Your task to perform on an android device: Is it going to rain this weekend? Image 0: 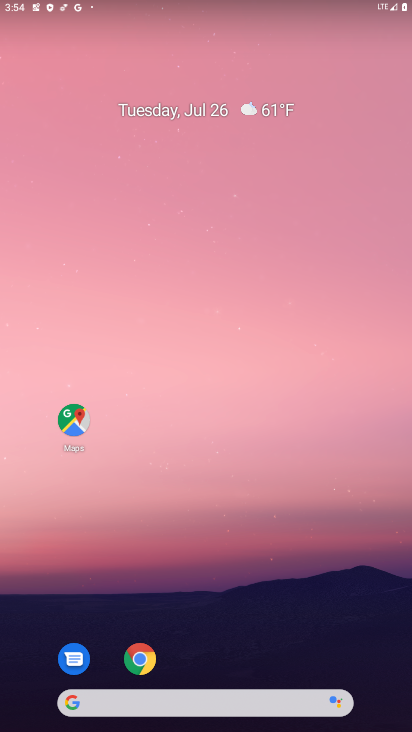
Step 0: drag from (307, 669) to (248, 60)
Your task to perform on an android device: Is it going to rain this weekend? Image 1: 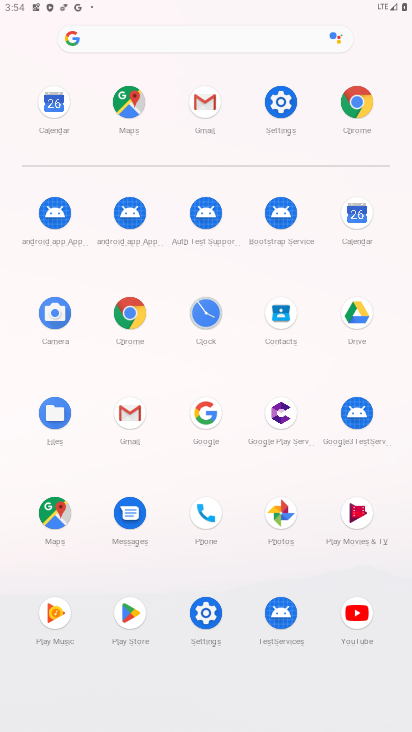
Step 1: click (354, 98)
Your task to perform on an android device: Is it going to rain this weekend? Image 2: 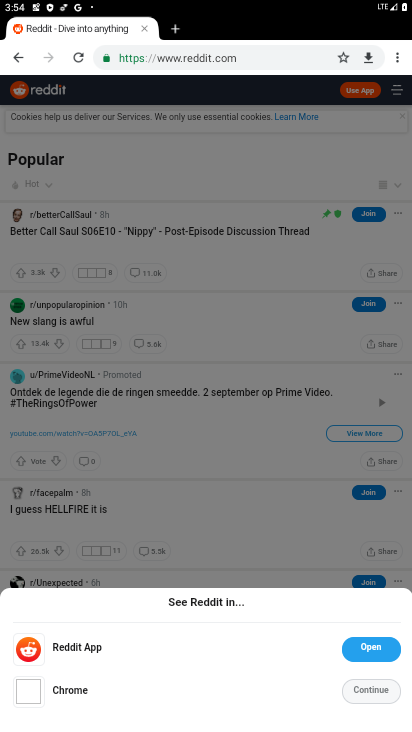
Step 2: click (189, 58)
Your task to perform on an android device: Is it going to rain this weekend? Image 3: 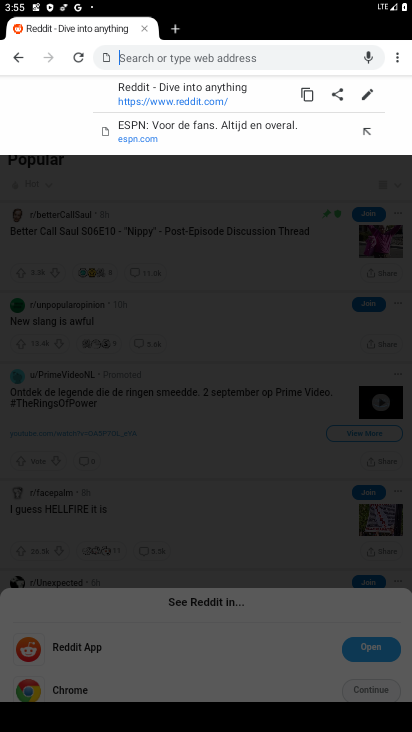
Step 3: type "weather"
Your task to perform on an android device: Is it going to rain this weekend? Image 4: 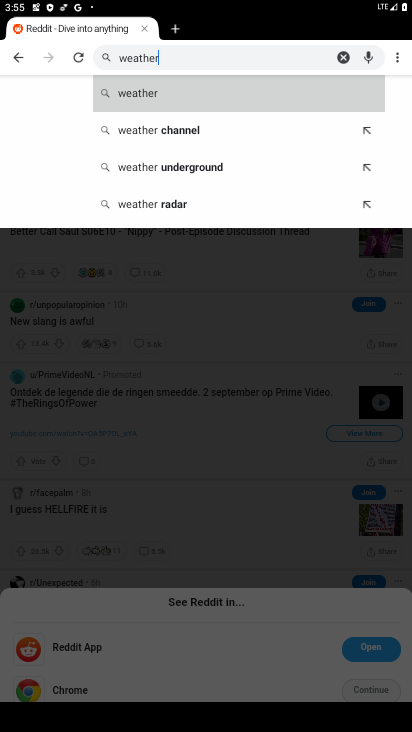
Step 4: click (159, 97)
Your task to perform on an android device: Is it going to rain this weekend? Image 5: 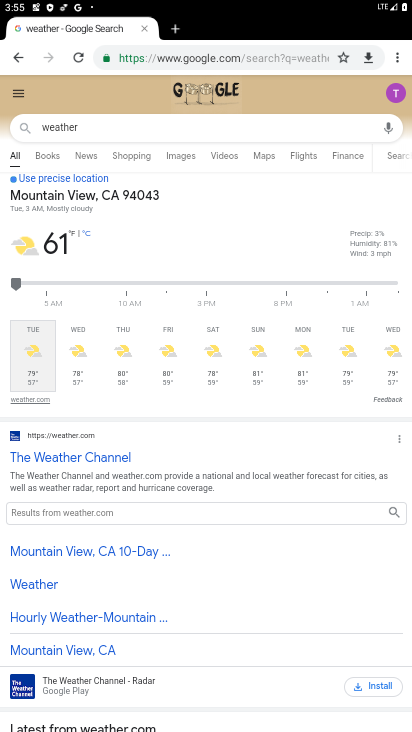
Step 5: click (209, 345)
Your task to perform on an android device: Is it going to rain this weekend? Image 6: 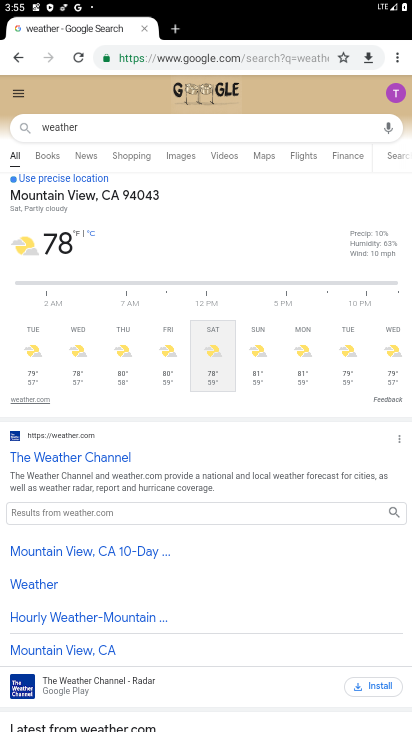
Step 6: task complete